Your task to perform on an android device: What is the recent news? Image 0: 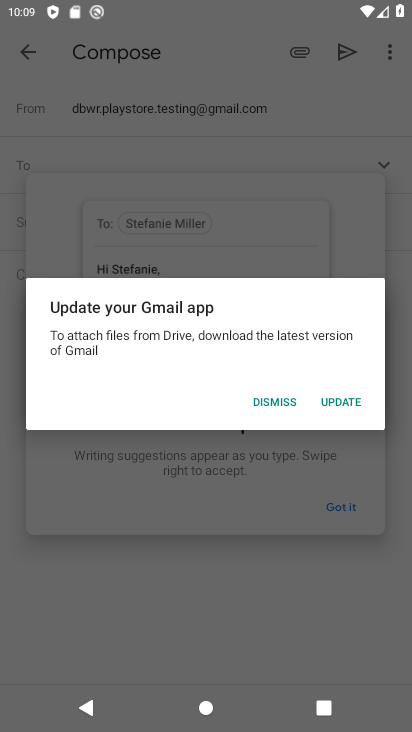
Step 0: press home button
Your task to perform on an android device: What is the recent news? Image 1: 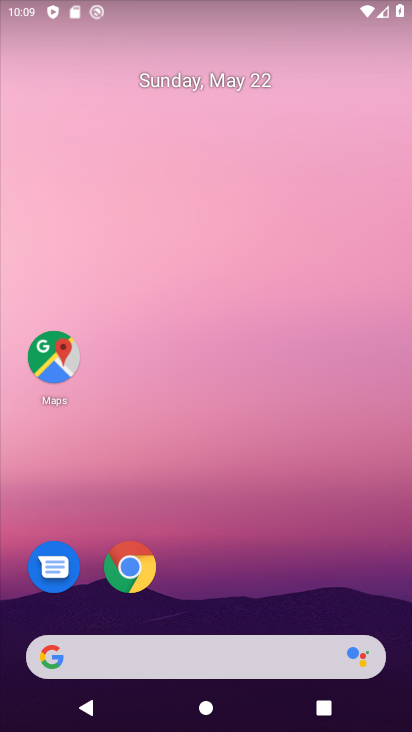
Step 1: task complete